Your task to perform on an android device: When is my next meeting? Image 0: 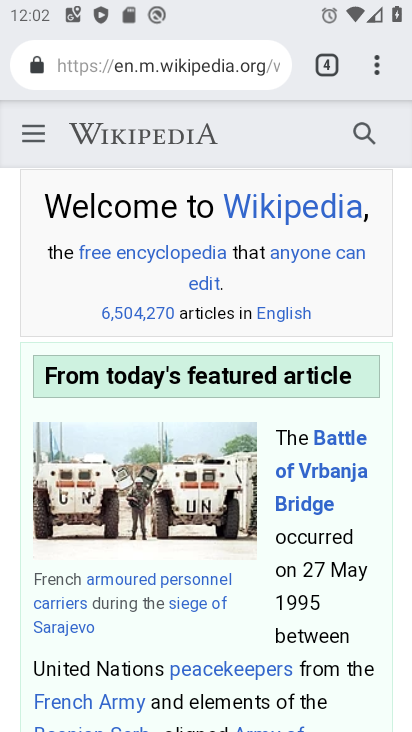
Step 0: press home button
Your task to perform on an android device: When is my next meeting? Image 1: 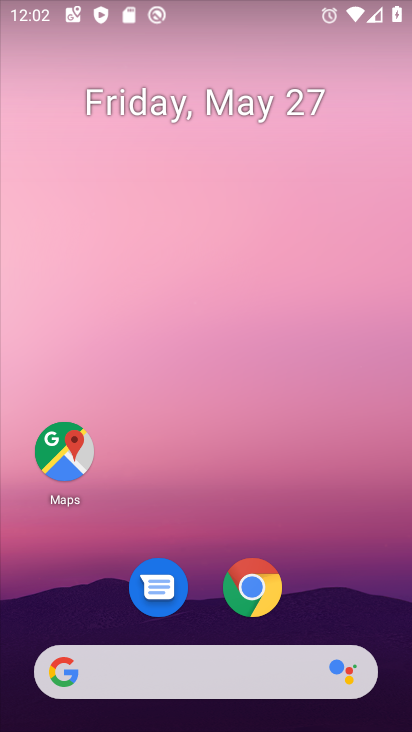
Step 1: drag from (270, 698) to (198, 89)
Your task to perform on an android device: When is my next meeting? Image 2: 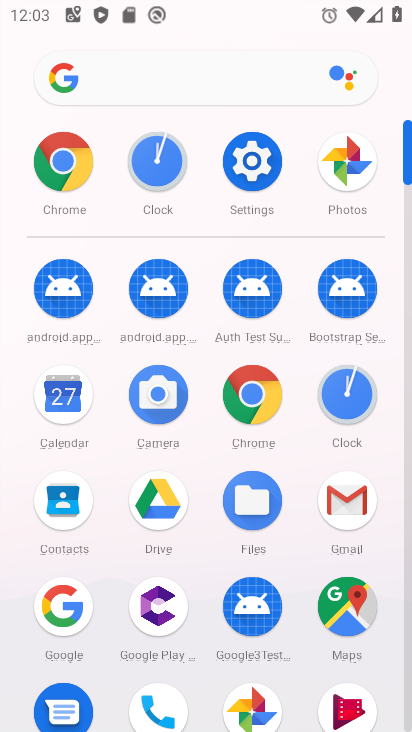
Step 2: click (62, 394)
Your task to perform on an android device: When is my next meeting? Image 3: 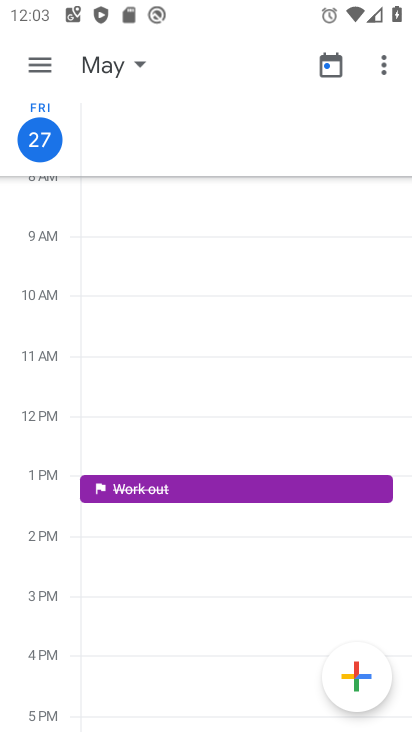
Step 3: click (50, 66)
Your task to perform on an android device: When is my next meeting? Image 4: 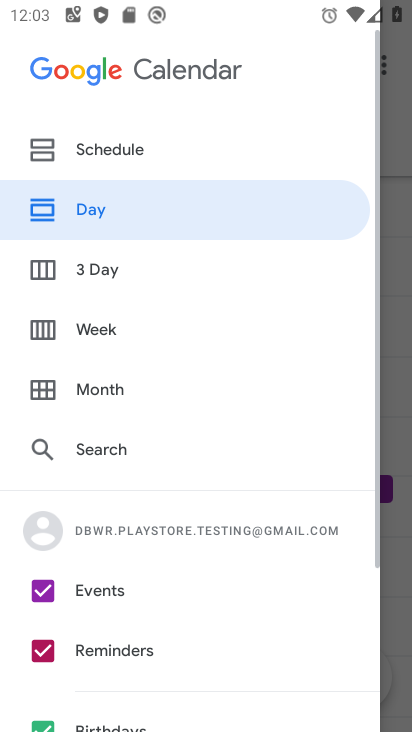
Step 4: click (124, 160)
Your task to perform on an android device: When is my next meeting? Image 5: 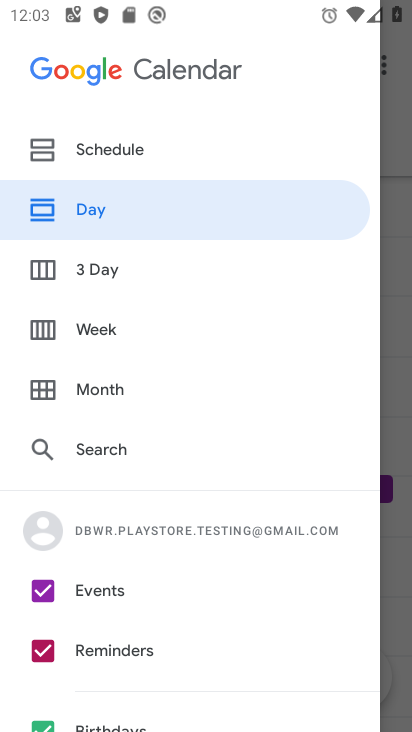
Step 5: click (125, 158)
Your task to perform on an android device: When is my next meeting? Image 6: 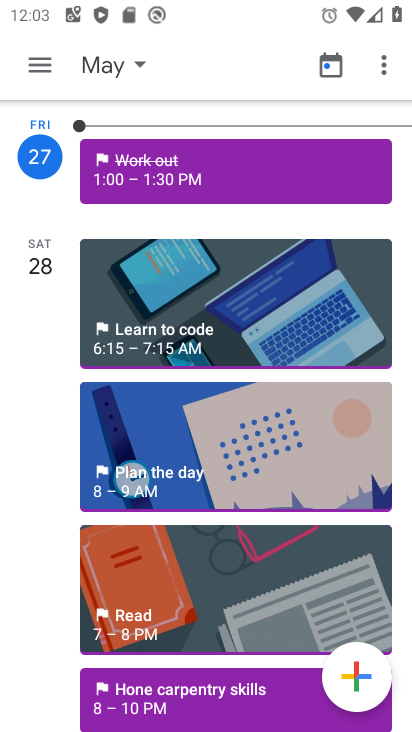
Step 6: task complete